Your task to perform on an android device: Open the calendar app, open the side menu, and click the "Day" option Image 0: 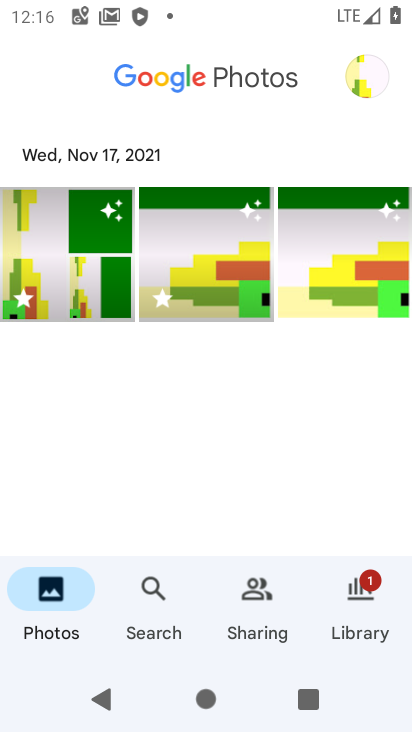
Step 0: press home button
Your task to perform on an android device: Open the calendar app, open the side menu, and click the "Day" option Image 1: 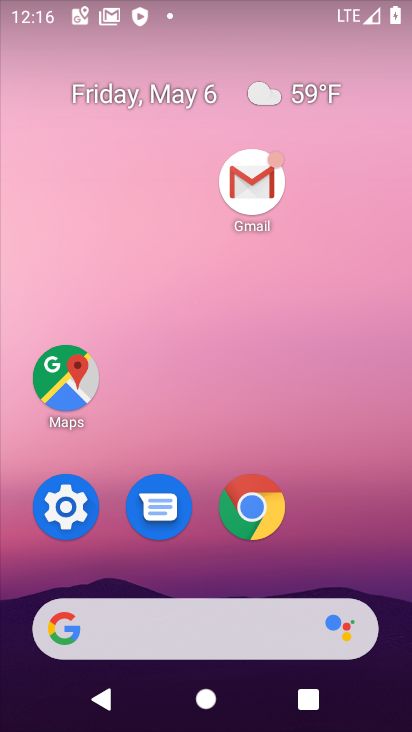
Step 1: drag from (339, 510) to (254, 88)
Your task to perform on an android device: Open the calendar app, open the side menu, and click the "Day" option Image 2: 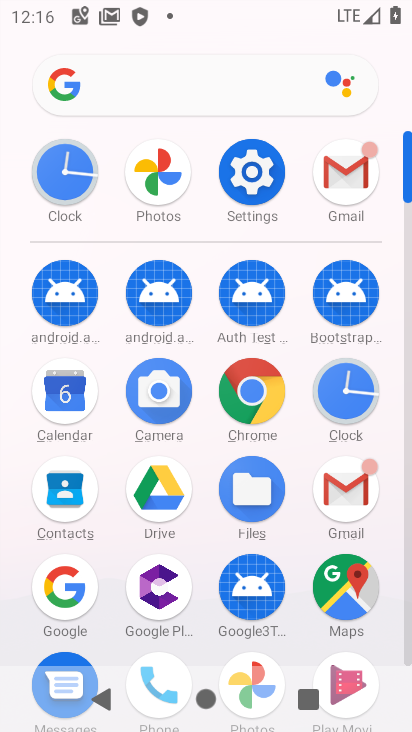
Step 2: click (68, 394)
Your task to perform on an android device: Open the calendar app, open the side menu, and click the "Day" option Image 3: 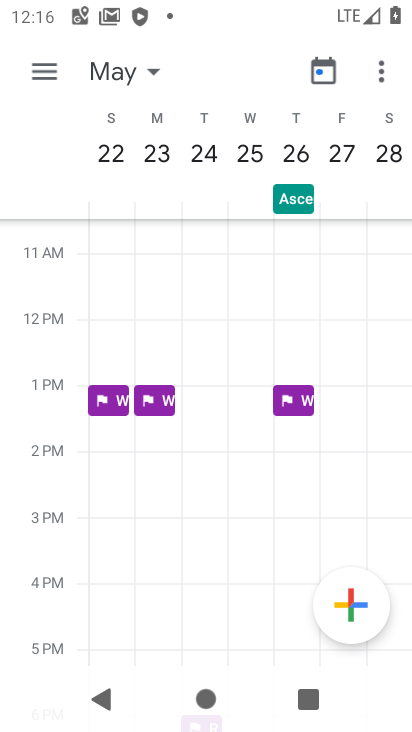
Step 3: click (44, 65)
Your task to perform on an android device: Open the calendar app, open the side menu, and click the "Day" option Image 4: 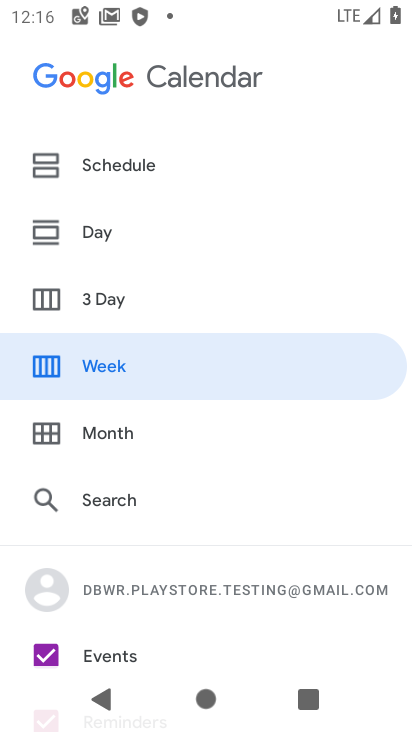
Step 4: click (98, 229)
Your task to perform on an android device: Open the calendar app, open the side menu, and click the "Day" option Image 5: 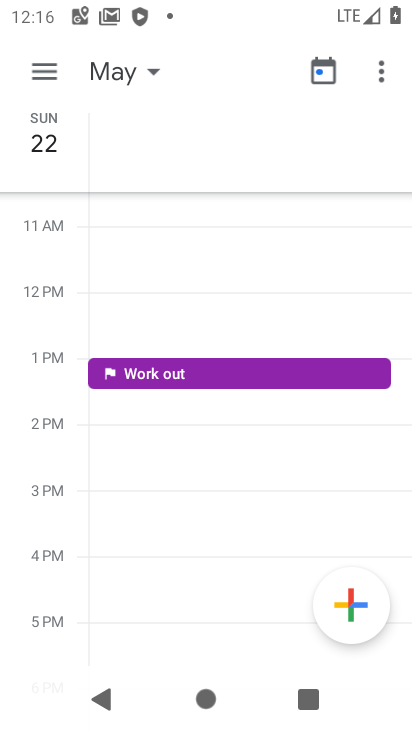
Step 5: task complete